Your task to perform on an android device: Search for dell alienware on amazon, select the first entry, add it to the cart, then select checkout. Image 0: 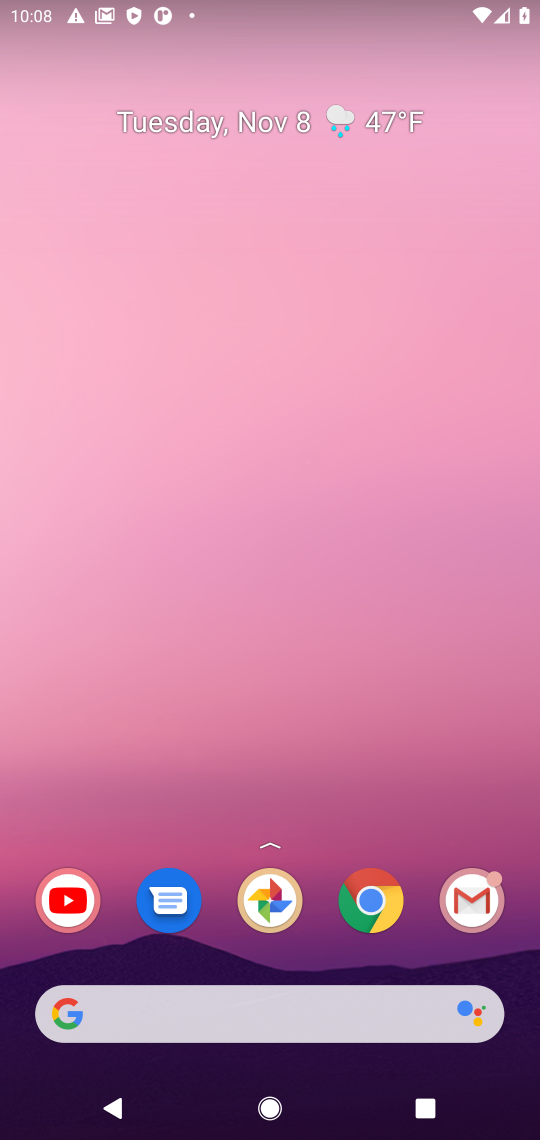
Step 0: click (382, 915)
Your task to perform on an android device: Search for dell alienware on amazon, select the first entry, add it to the cart, then select checkout. Image 1: 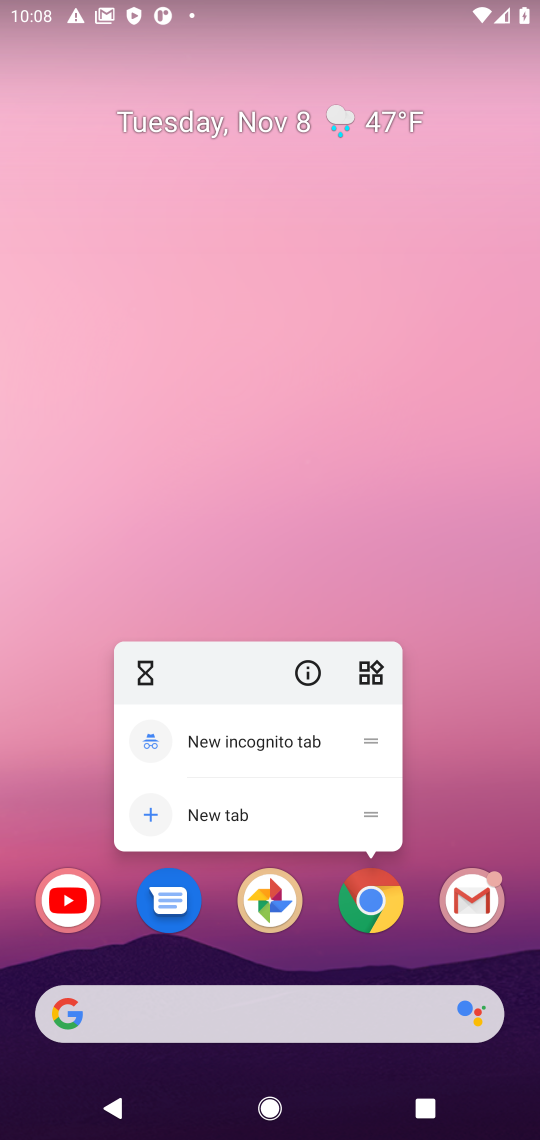
Step 1: click (375, 912)
Your task to perform on an android device: Search for dell alienware on amazon, select the first entry, add it to the cart, then select checkout. Image 2: 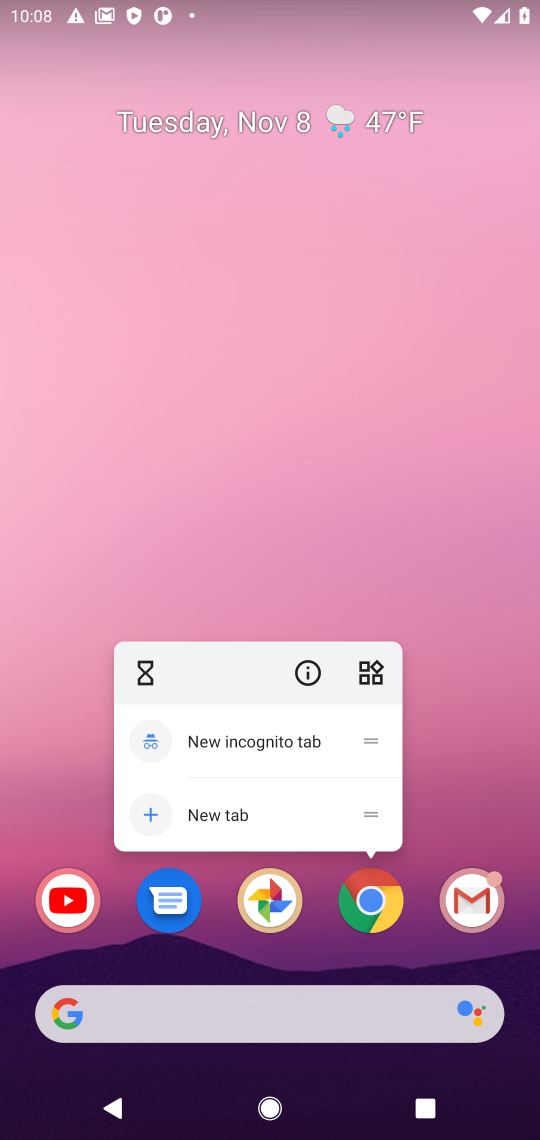
Step 2: click (373, 904)
Your task to perform on an android device: Search for dell alienware on amazon, select the first entry, add it to the cart, then select checkout. Image 3: 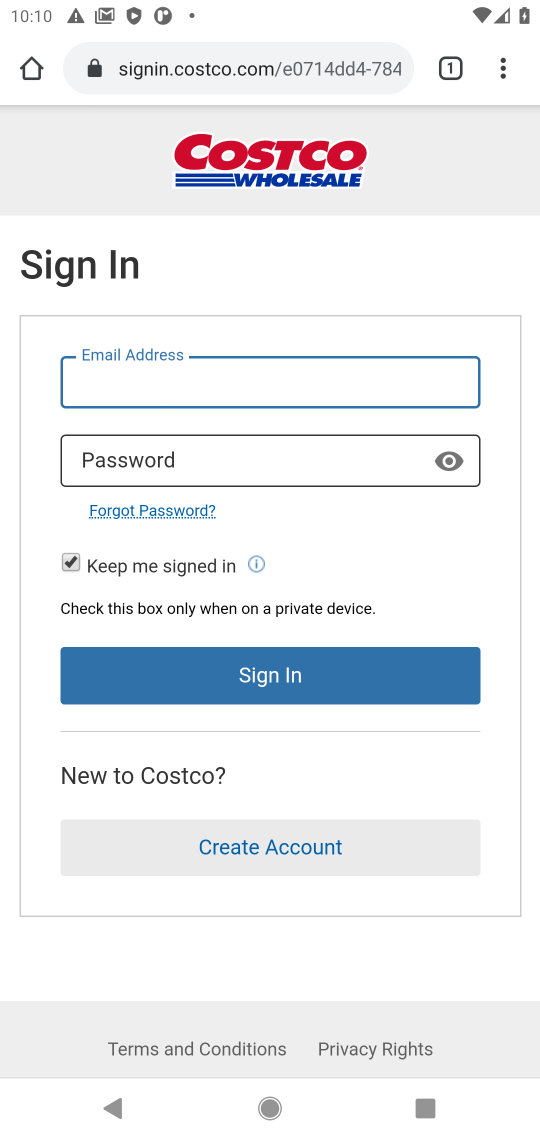
Step 3: click (132, 61)
Your task to perform on an android device: Search for dell alienware on amazon, select the first entry, add it to the cart, then select checkout. Image 4: 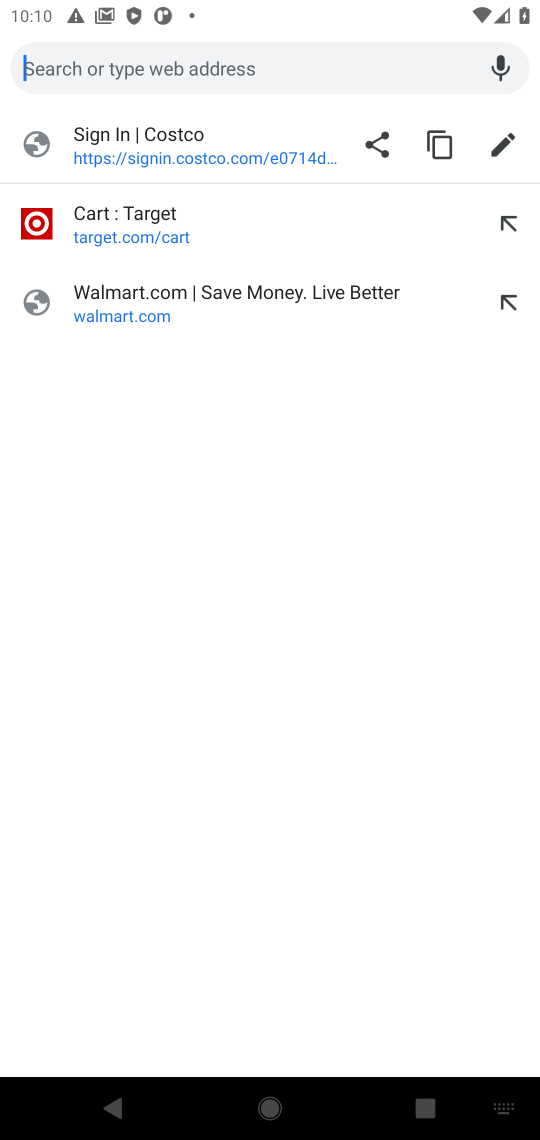
Step 4: type "amazon"
Your task to perform on an android device: Search for dell alienware on amazon, select the first entry, add it to the cart, then select checkout. Image 5: 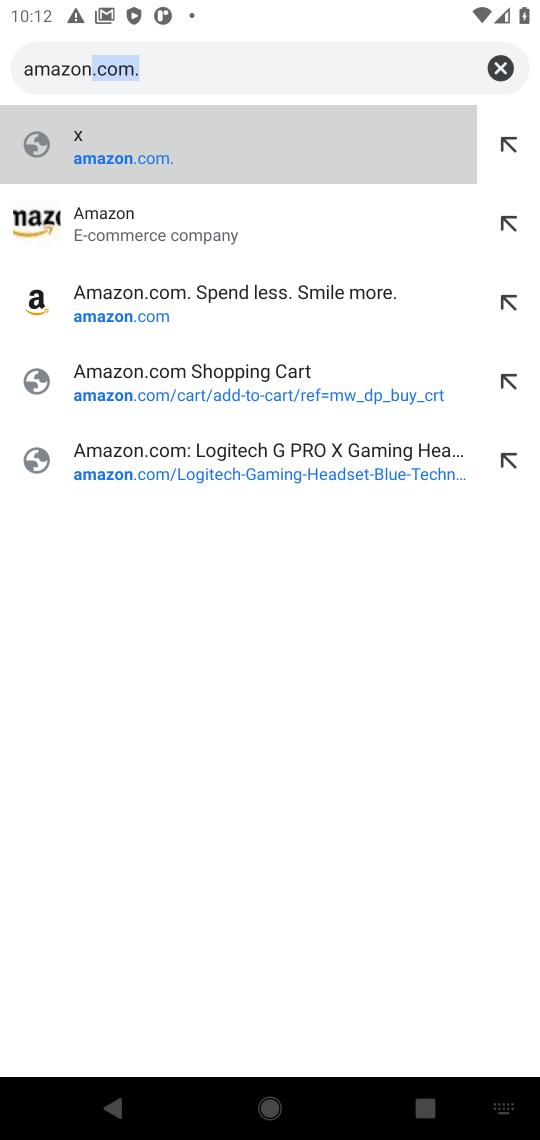
Step 5: click (111, 217)
Your task to perform on an android device: Search for dell alienware on amazon, select the first entry, add it to the cart, then select checkout. Image 6: 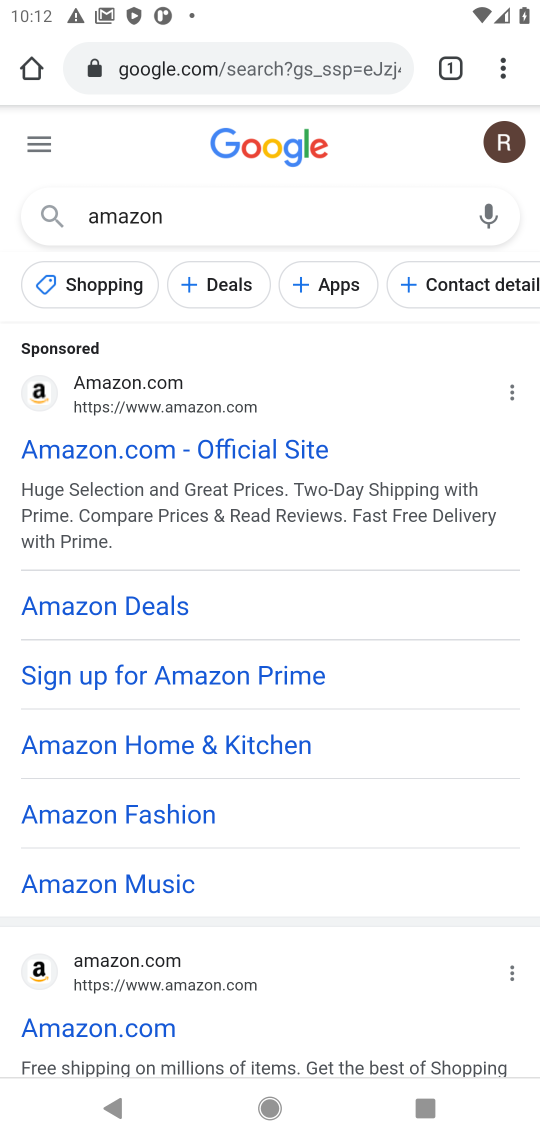
Step 6: click (82, 450)
Your task to perform on an android device: Search for dell alienware on amazon, select the first entry, add it to the cart, then select checkout. Image 7: 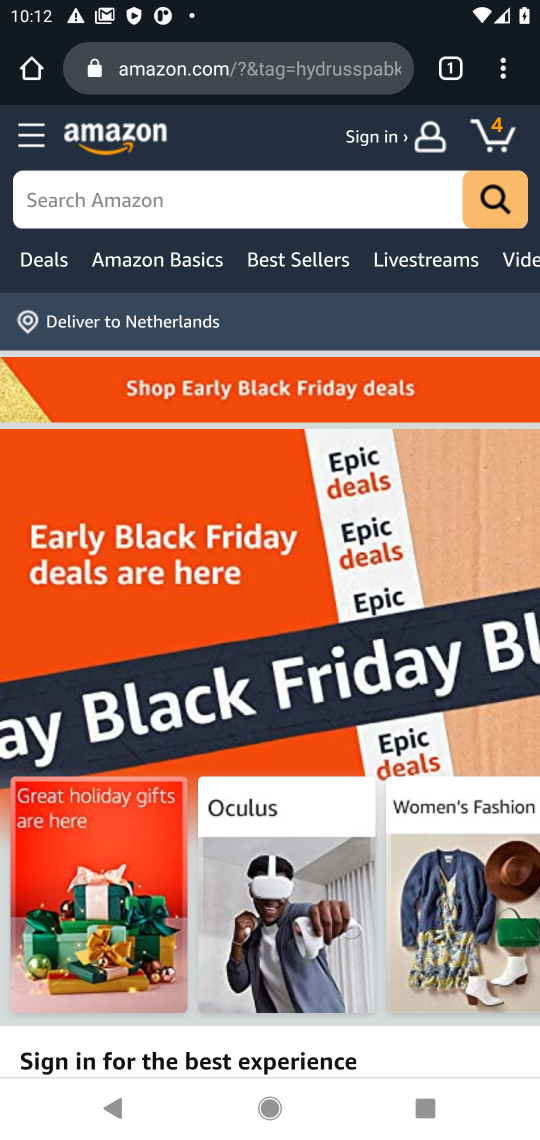
Step 7: click (114, 196)
Your task to perform on an android device: Search for dell alienware on amazon, select the first entry, add it to the cart, then select checkout. Image 8: 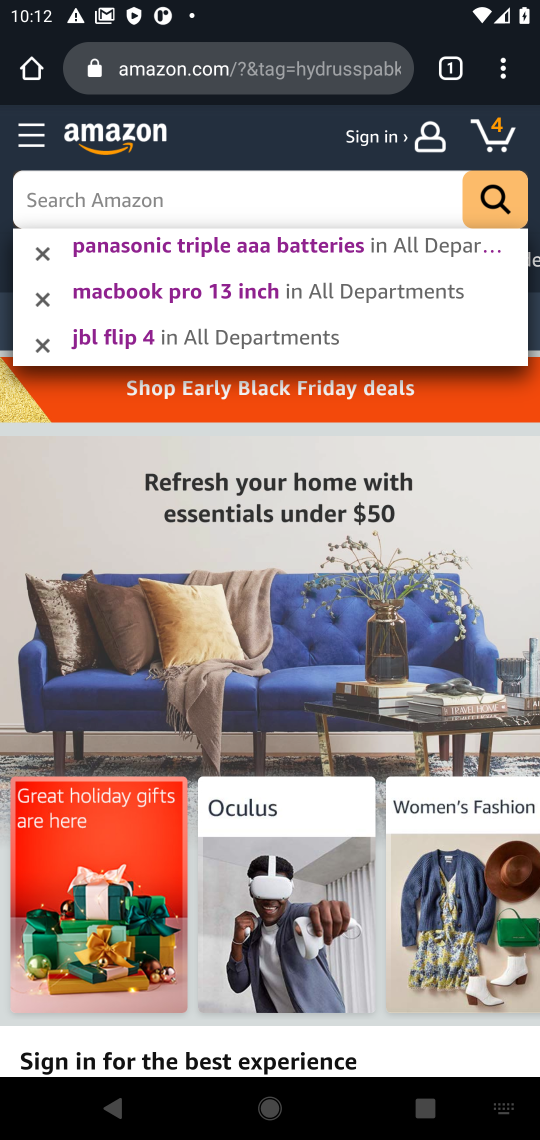
Step 8: type "dell alienware"
Your task to perform on an android device: Search for dell alienware on amazon, select the first entry, add it to the cart, then select checkout. Image 9: 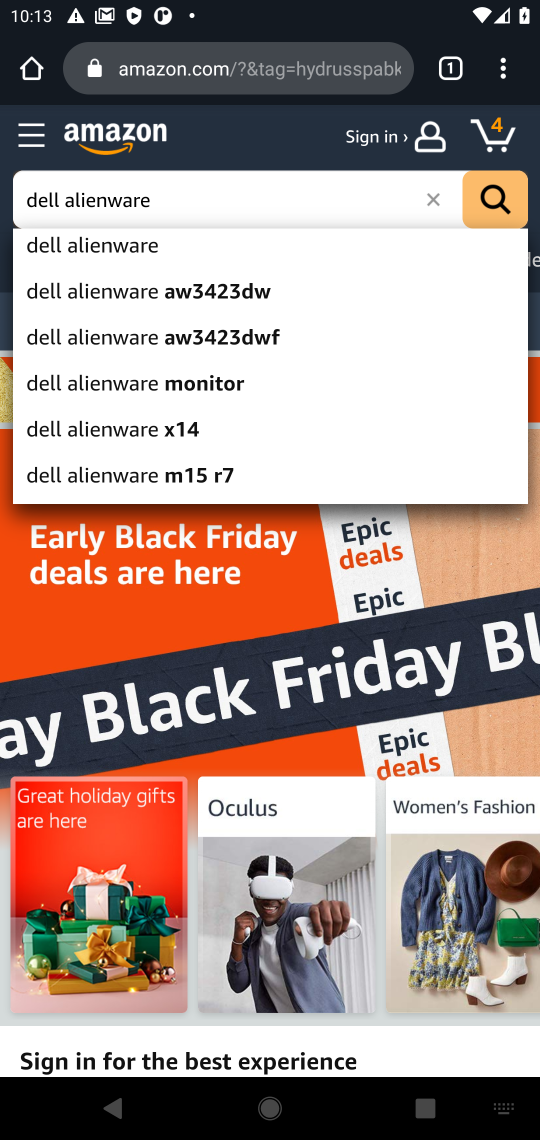
Step 9: click (114, 243)
Your task to perform on an android device: Search for dell alienware on amazon, select the first entry, add it to the cart, then select checkout. Image 10: 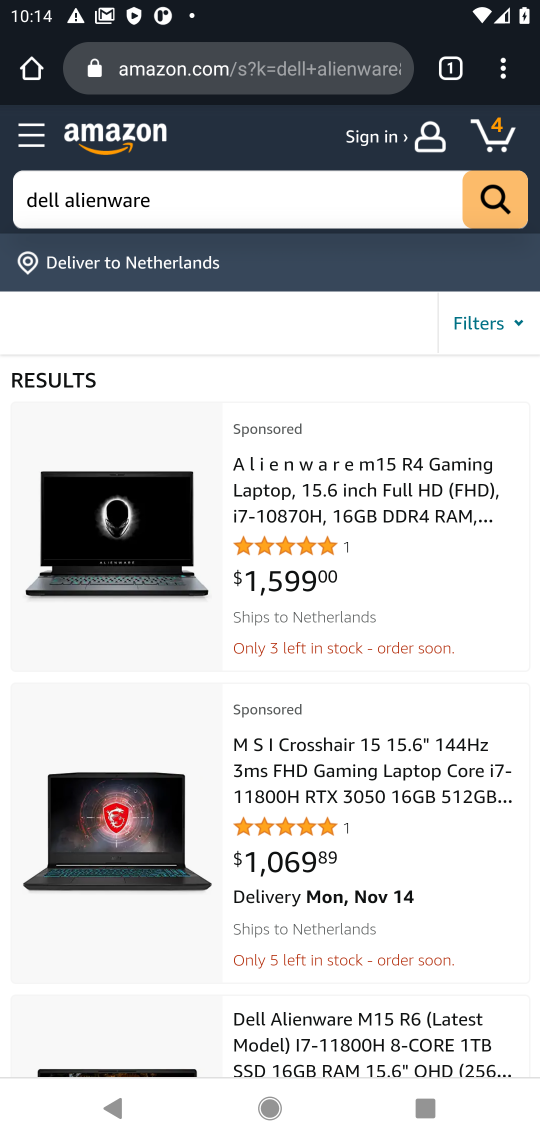
Step 10: click (309, 465)
Your task to perform on an android device: Search for dell alienware on amazon, select the first entry, add it to the cart, then select checkout. Image 11: 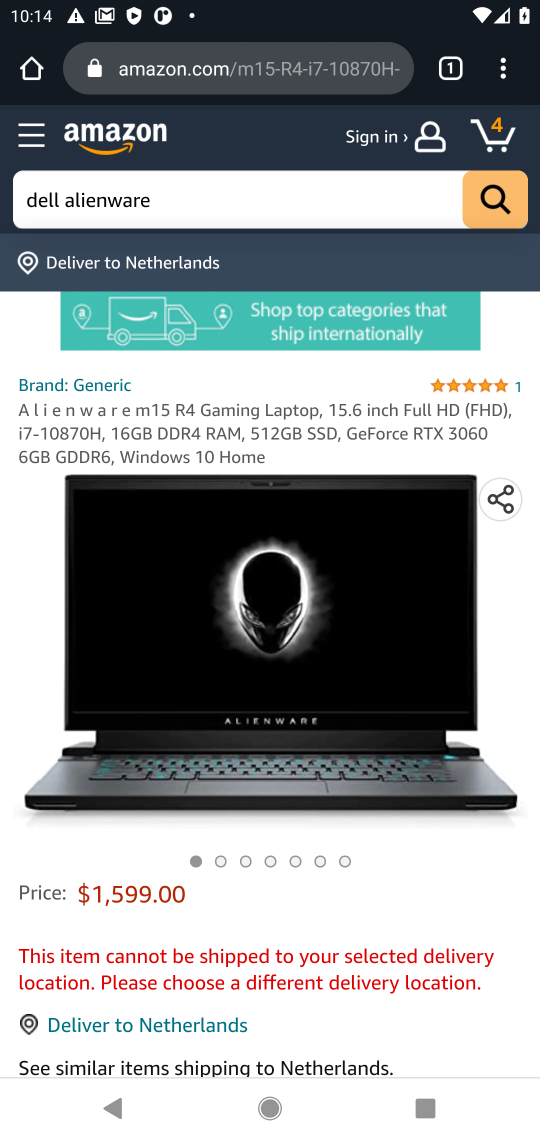
Step 11: task complete